Your task to perform on an android device: add a contact in the contacts app Image 0: 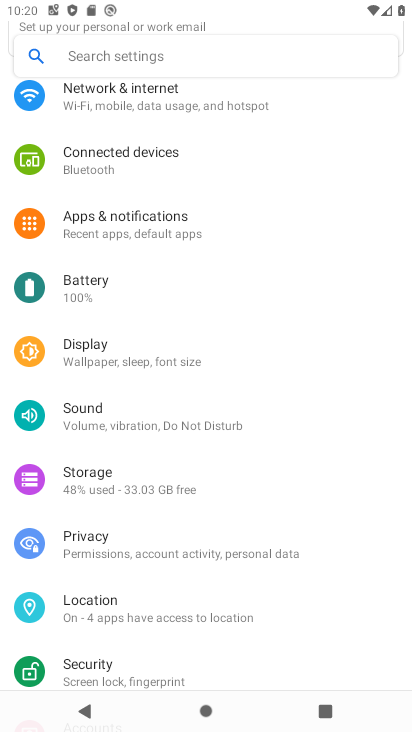
Step 0: press home button
Your task to perform on an android device: add a contact in the contacts app Image 1: 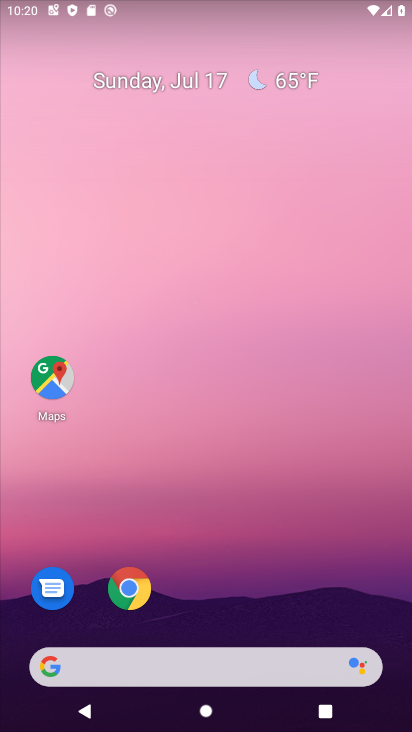
Step 1: drag from (219, 560) to (167, 42)
Your task to perform on an android device: add a contact in the contacts app Image 2: 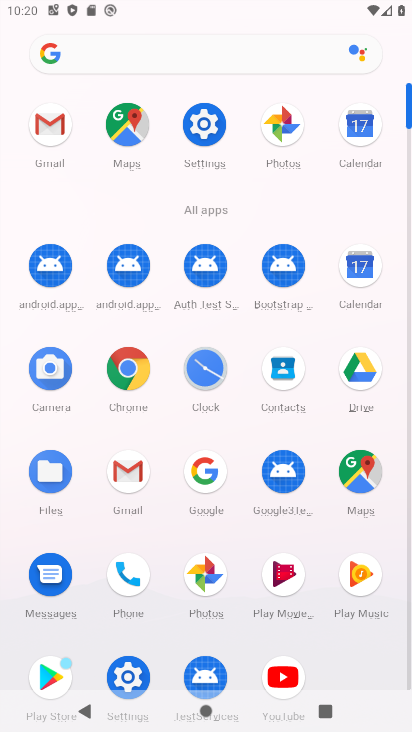
Step 2: click (292, 366)
Your task to perform on an android device: add a contact in the contacts app Image 3: 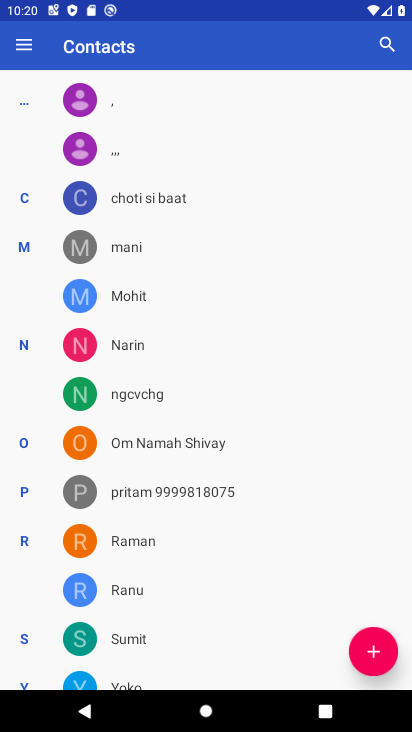
Step 3: click (381, 652)
Your task to perform on an android device: add a contact in the contacts app Image 4: 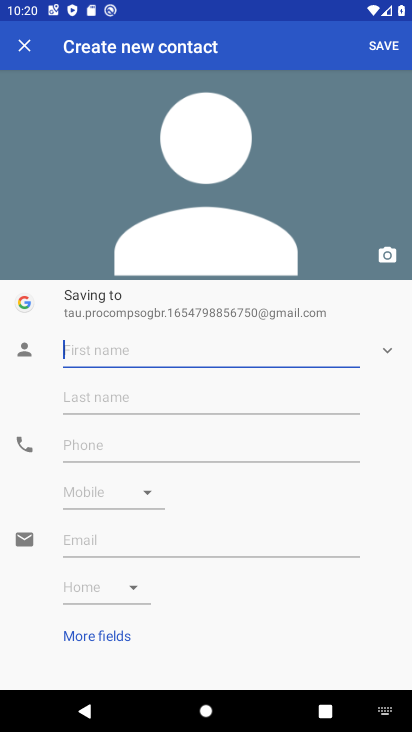
Step 4: type "aerstrjyut"
Your task to perform on an android device: add a contact in the contacts app Image 5: 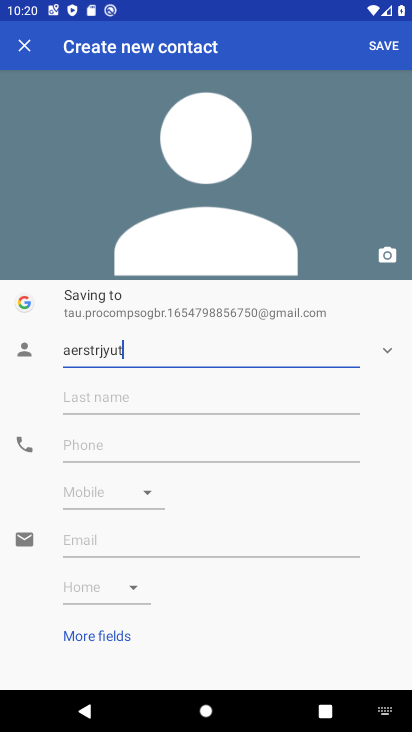
Step 5: click (156, 448)
Your task to perform on an android device: add a contact in the contacts app Image 6: 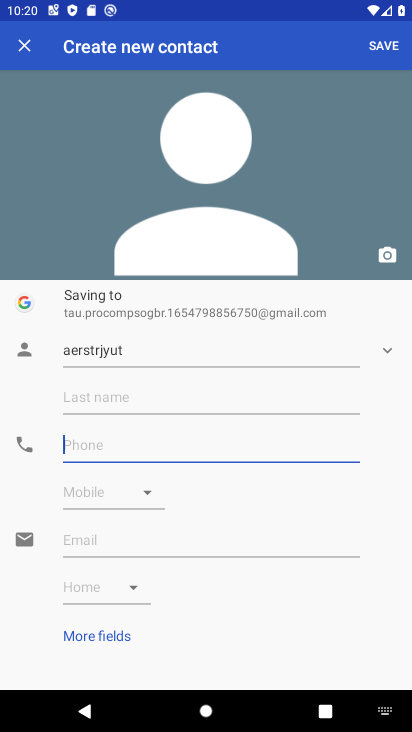
Step 6: type "98765678"
Your task to perform on an android device: add a contact in the contacts app Image 7: 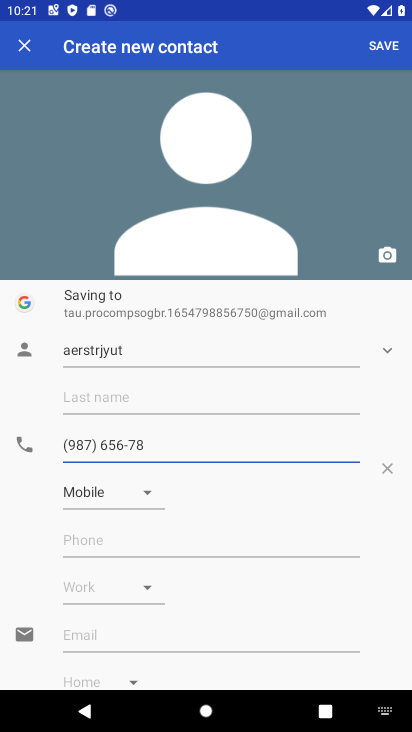
Step 7: click (377, 42)
Your task to perform on an android device: add a contact in the contacts app Image 8: 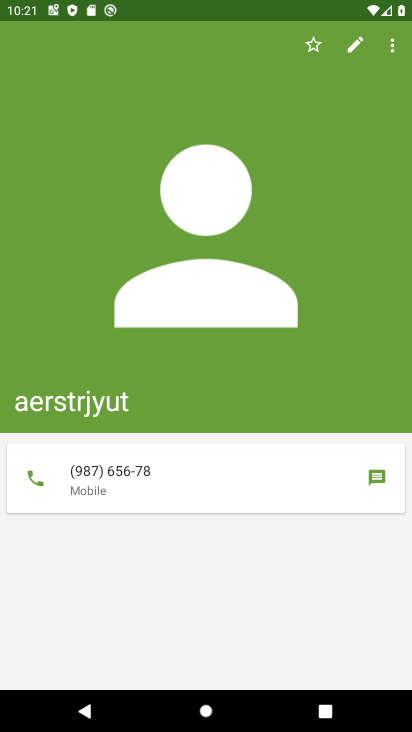
Step 8: task complete